Your task to perform on an android device: open app "Google Docs" (install if not already installed) Image 0: 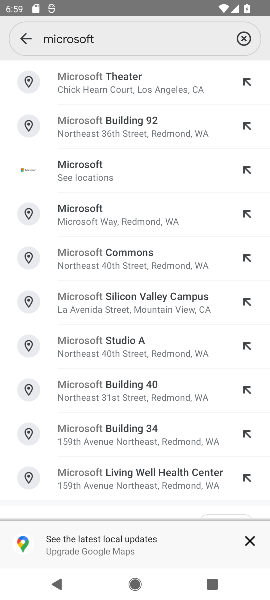
Step 0: press home button
Your task to perform on an android device: open app "Google Docs" (install if not already installed) Image 1: 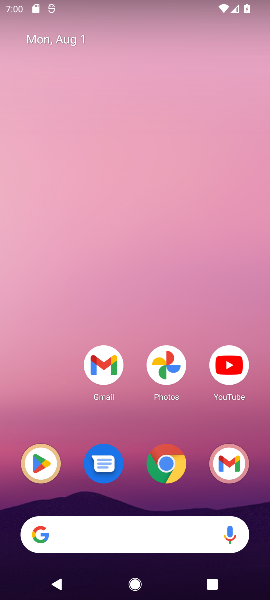
Step 1: click (50, 460)
Your task to perform on an android device: open app "Google Docs" (install if not already installed) Image 2: 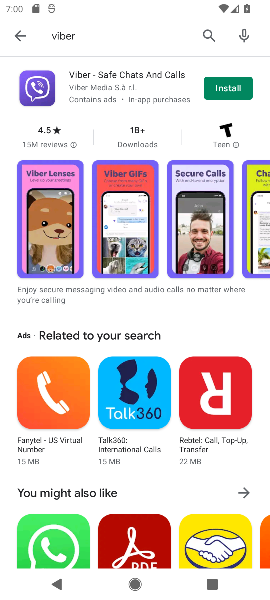
Step 2: click (210, 39)
Your task to perform on an android device: open app "Google Docs" (install if not already installed) Image 3: 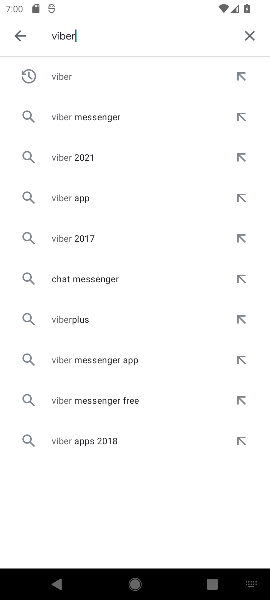
Step 3: click (249, 40)
Your task to perform on an android device: open app "Google Docs" (install if not already installed) Image 4: 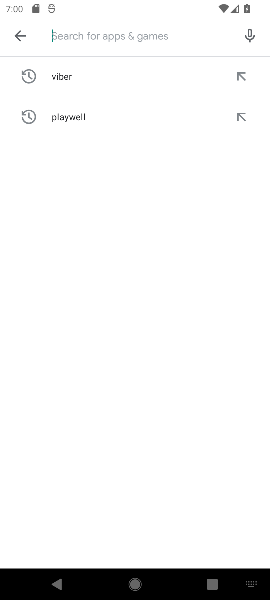
Step 4: type "google doc"
Your task to perform on an android device: open app "Google Docs" (install if not already installed) Image 5: 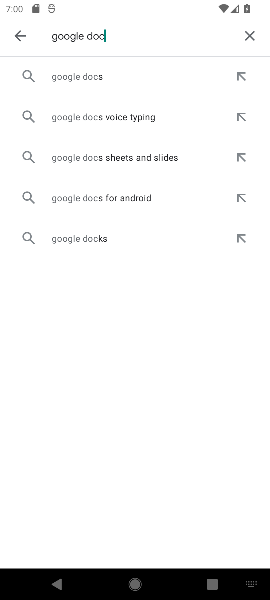
Step 5: click (115, 61)
Your task to perform on an android device: open app "Google Docs" (install if not already installed) Image 6: 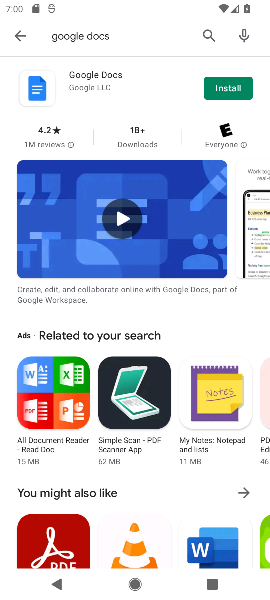
Step 6: click (229, 96)
Your task to perform on an android device: open app "Google Docs" (install if not already installed) Image 7: 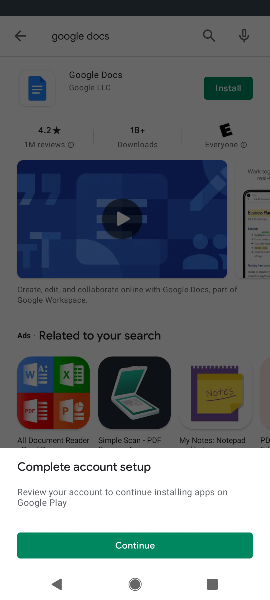
Step 7: click (42, 547)
Your task to perform on an android device: open app "Google Docs" (install if not already installed) Image 8: 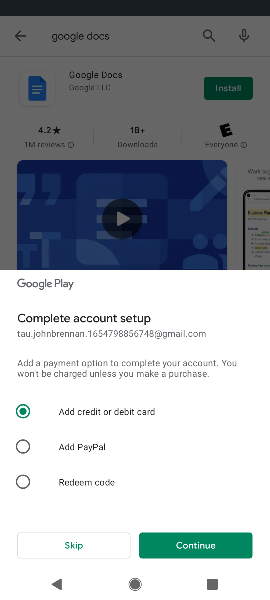
Step 8: click (66, 549)
Your task to perform on an android device: open app "Google Docs" (install if not already installed) Image 9: 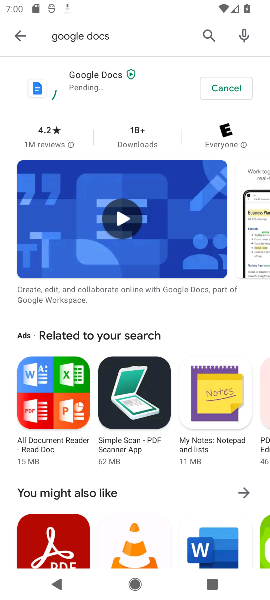
Step 9: task complete